Your task to perform on an android device: Open calendar and show me the second week of next month Image 0: 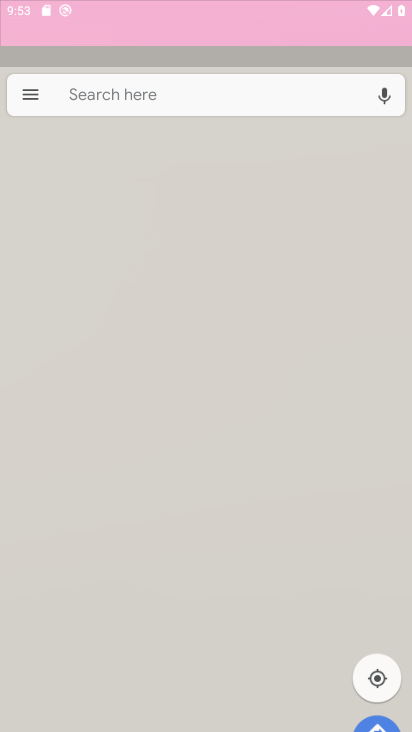
Step 0: click (272, 240)
Your task to perform on an android device: Open calendar and show me the second week of next month Image 1: 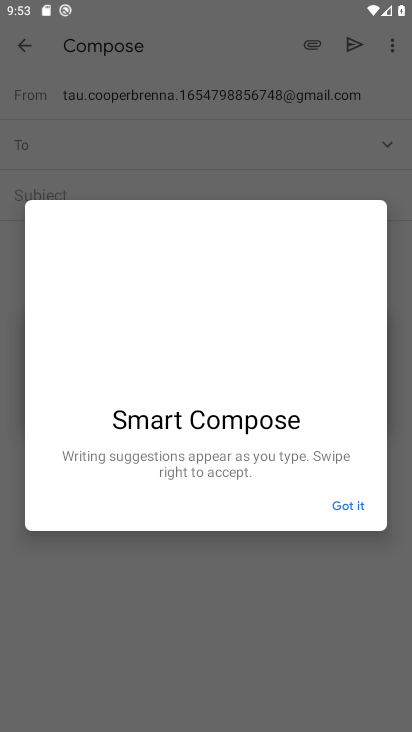
Step 1: press home button
Your task to perform on an android device: Open calendar and show me the second week of next month Image 2: 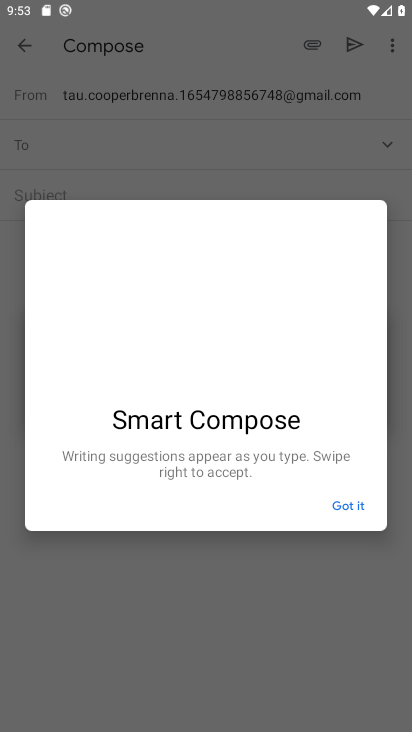
Step 2: click (345, 505)
Your task to perform on an android device: Open calendar and show me the second week of next month Image 3: 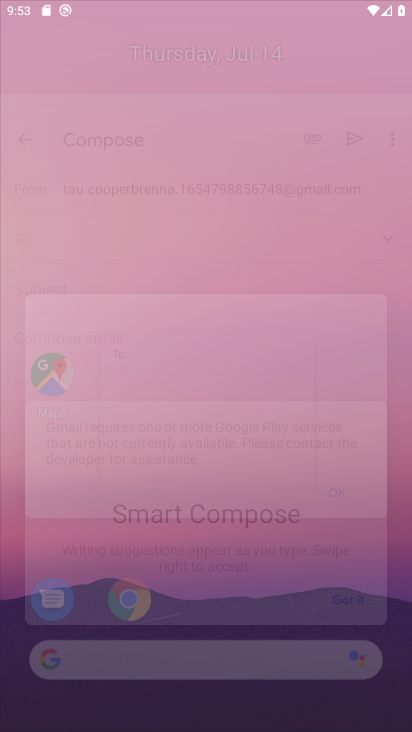
Step 3: drag from (256, 570) to (411, 187)
Your task to perform on an android device: Open calendar and show me the second week of next month Image 4: 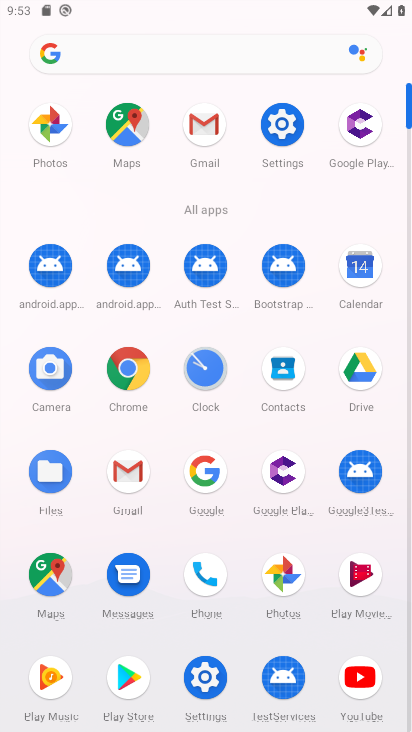
Step 4: click (365, 279)
Your task to perform on an android device: Open calendar and show me the second week of next month Image 5: 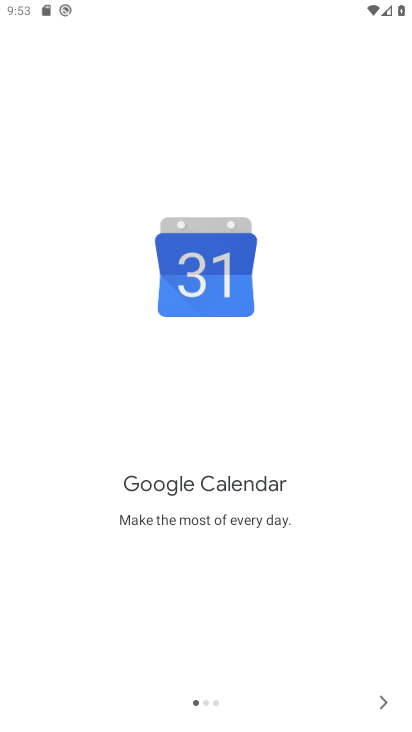
Step 5: click (374, 692)
Your task to perform on an android device: Open calendar and show me the second week of next month Image 6: 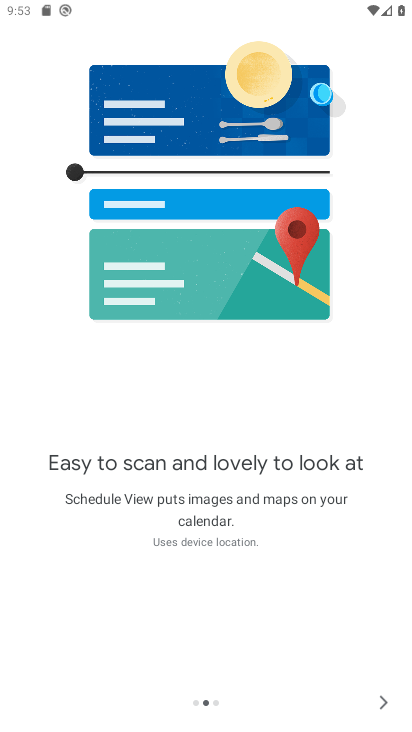
Step 6: click (381, 698)
Your task to perform on an android device: Open calendar and show me the second week of next month Image 7: 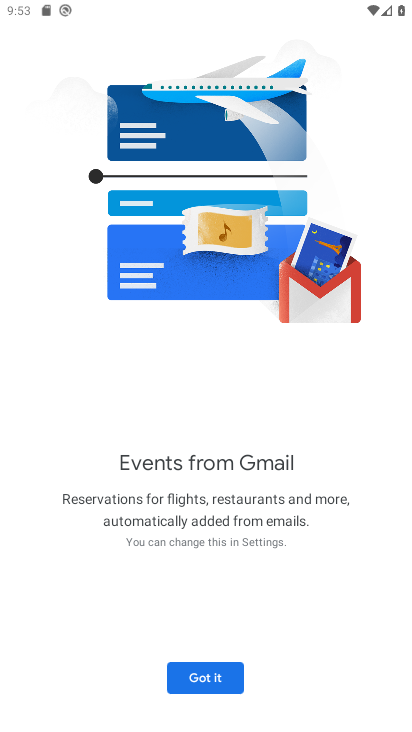
Step 7: click (212, 675)
Your task to perform on an android device: Open calendar and show me the second week of next month Image 8: 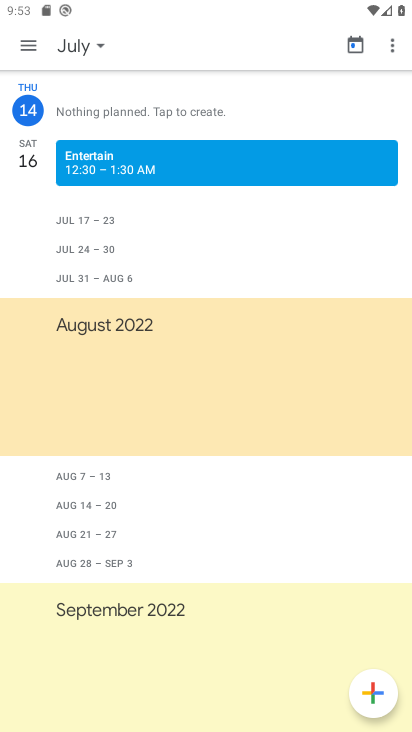
Step 8: click (89, 56)
Your task to perform on an android device: Open calendar and show me the second week of next month Image 9: 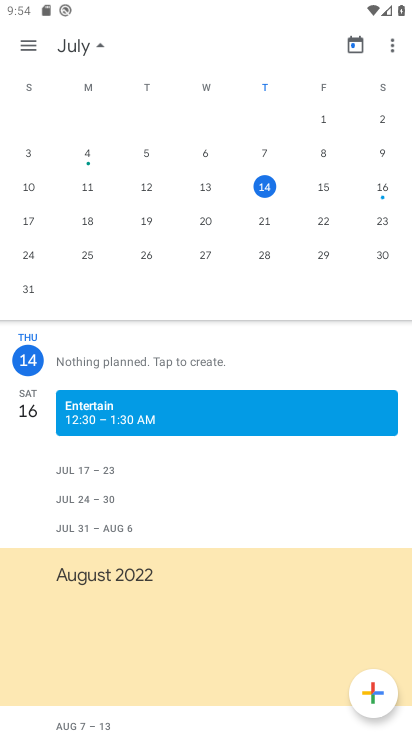
Step 9: drag from (382, 191) to (41, 251)
Your task to perform on an android device: Open calendar and show me the second week of next month Image 10: 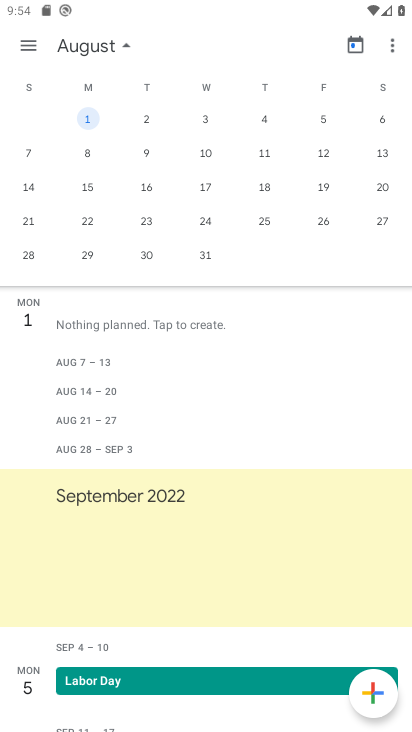
Step 10: click (255, 156)
Your task to perform on an android device: Open calendar and show me the second week of next month Image 11: 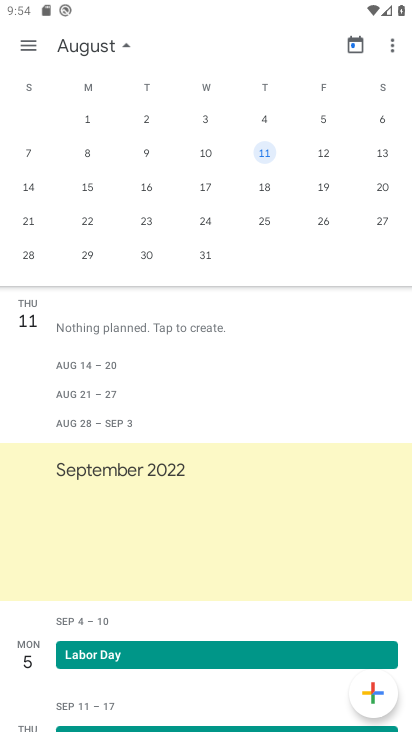
Step 11: click (264, 158)
Your task to perform on an android device: Open calendar and show me the second week of next month Image 12: 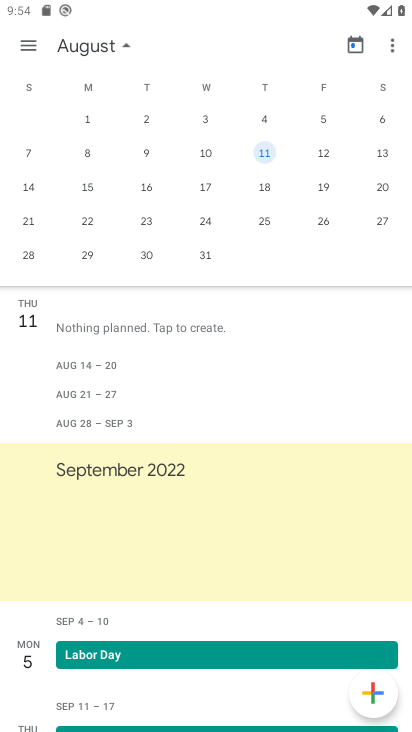
Step 12: task complete